Your task to perform on an android device: turn off data saver in the chrome app Image 0: 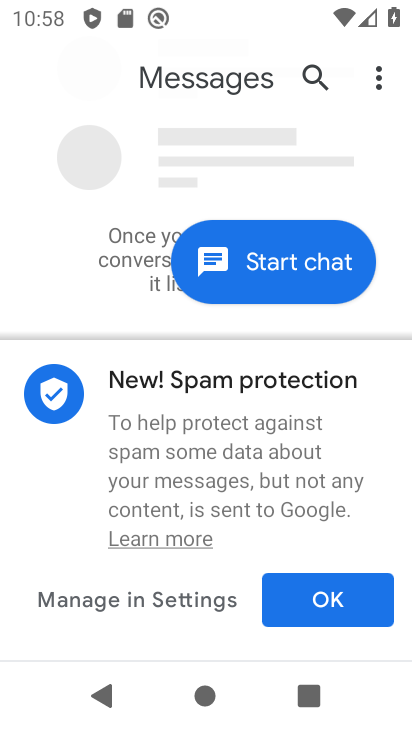
Step 0: press home button
Your task to perform on an android device: turn off data saver in the chrome app Image 1: 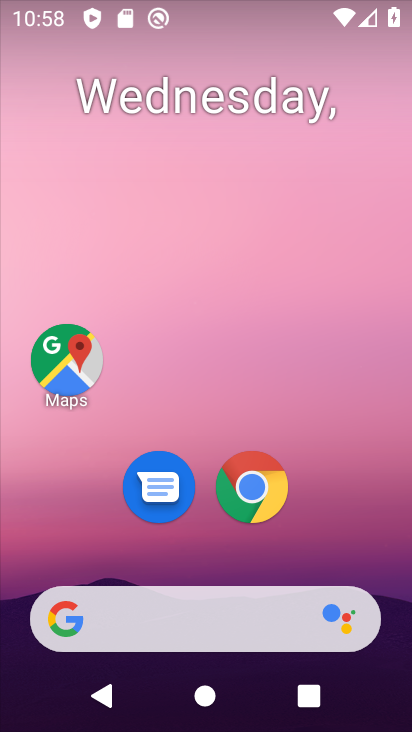
Step 1: click (255, 486)
Your task to perform on an android device: turn off data saver in the chrome app Image 2: 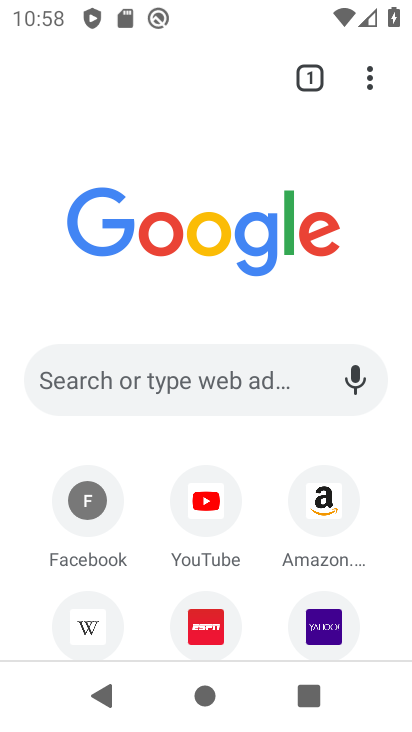
Step 2: click (364, 79)
Your task to perform on an android device: turn off data saver in the chrome app Image 3: 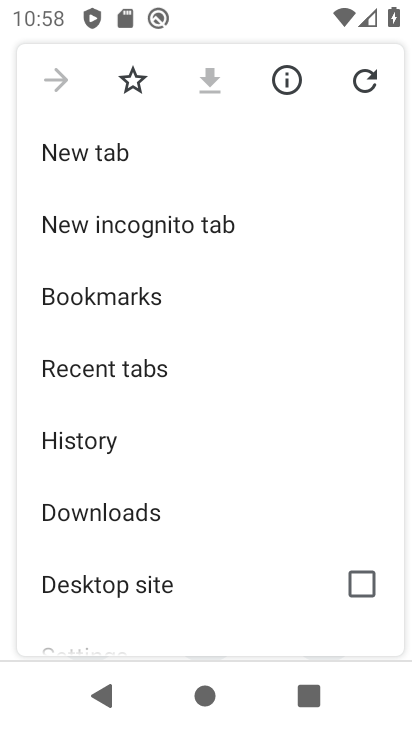
Step 3: drag from (238, 446) to (257, 125)
Your task to perform on an android device: turn off data saver in the chrome app Image 4: 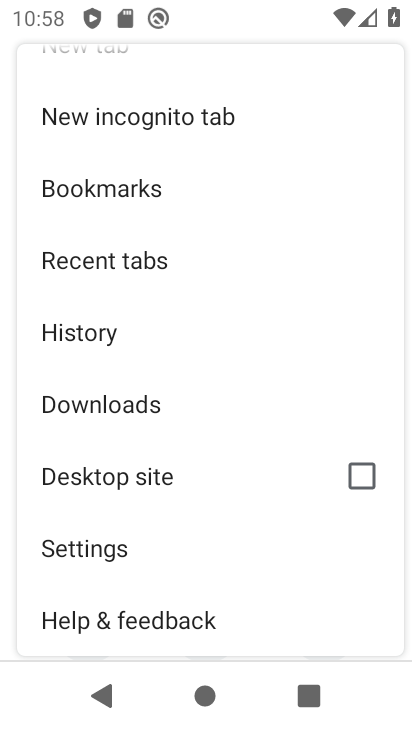
Step 4: click (115, 535)
Your task to perform on an android device: turn off data saver in the chrome app Image 5: 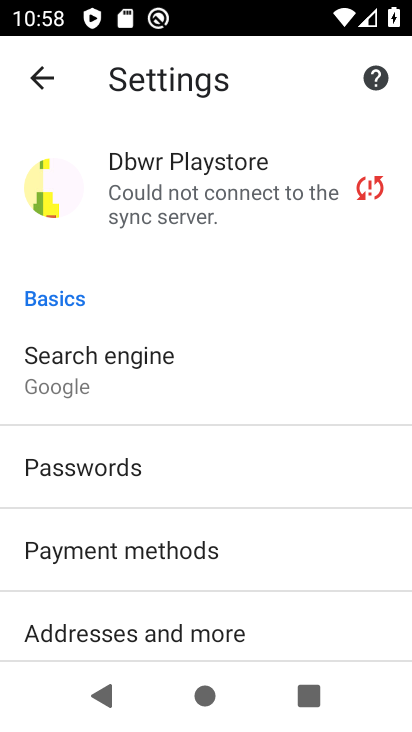
Step 5: drag from (271, 564) to (291, 195)
Your task to perform on an android device: turn off data saver in the chrome app Image 6: 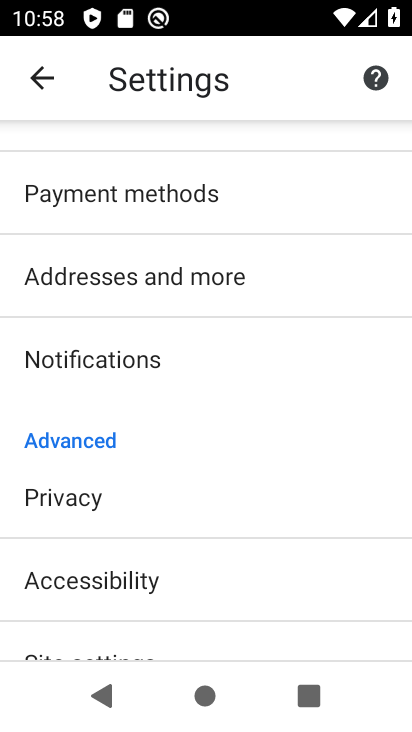
Step 6: drag from (231, 434) to (228, 200)
Your task to perform on an android device: turn off data saver in the chrome app Image 7: 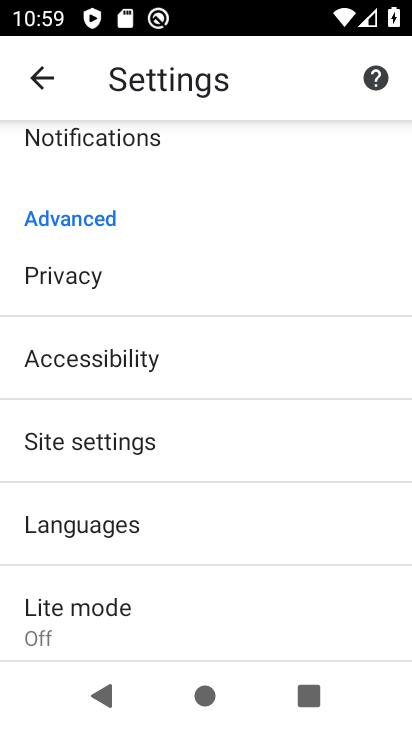
Step 7: click (161, 617)
Your task to perform on an android device: turn off data saver in the chrome app Image 8: 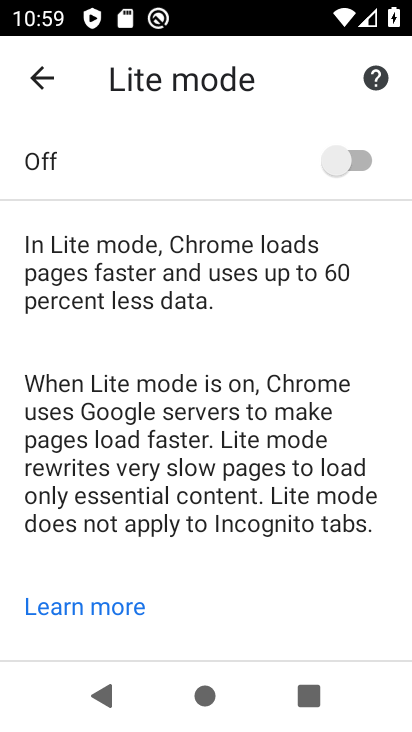
Step 8: task complete